Your task to perform on an android device: see sites visited before in the chrome app Image 0: 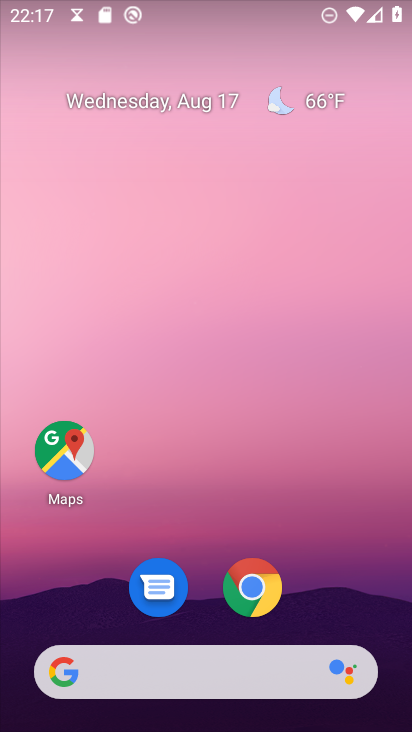
Step 0: click (277, 615)
Your task to perform on an android device: see sites visited before in the chrome app Image 1: 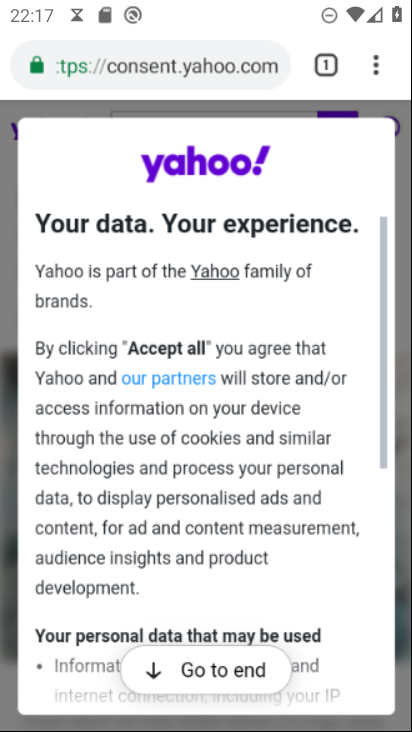
Step 1: click (257, 572)
Your task to perform on an android device: see sites visited before in the chrome app Image 2: 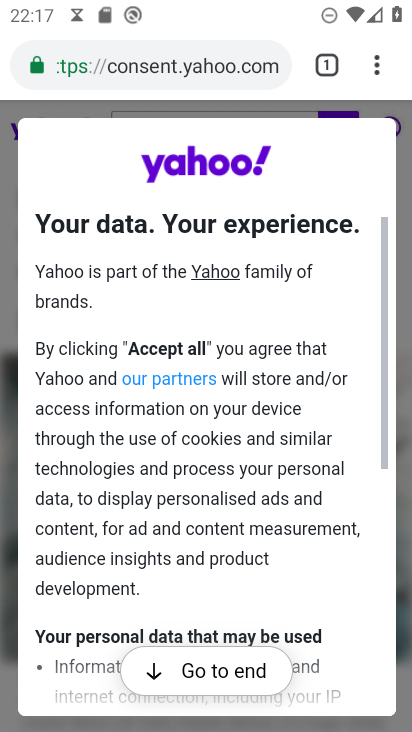
Step 2: click (370, 70)
Your task to perform on an android device: see sites visited before in the chrome app Image 3: 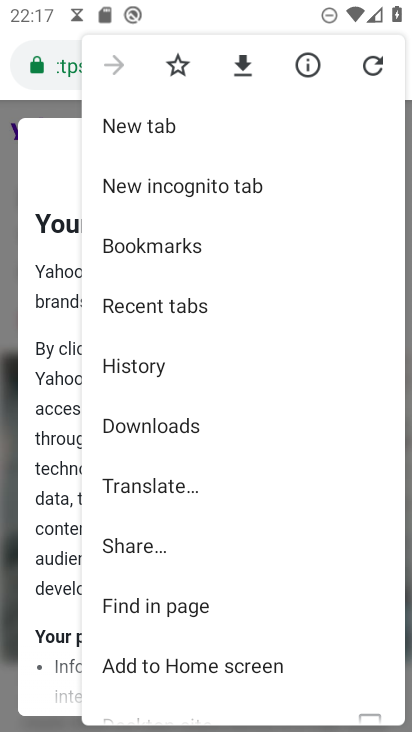
Step 3: drag from (354, 672) to (359, 232)
Your task to perform on an android device: see sites visited before in the chrome app Image 4: 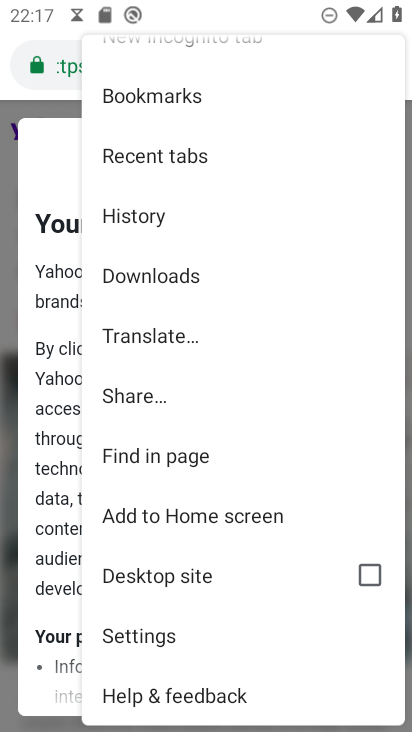
Step 4: click (139, 648)
Your task to perform on an android device: see sites visited before in the chrome app Image 5: 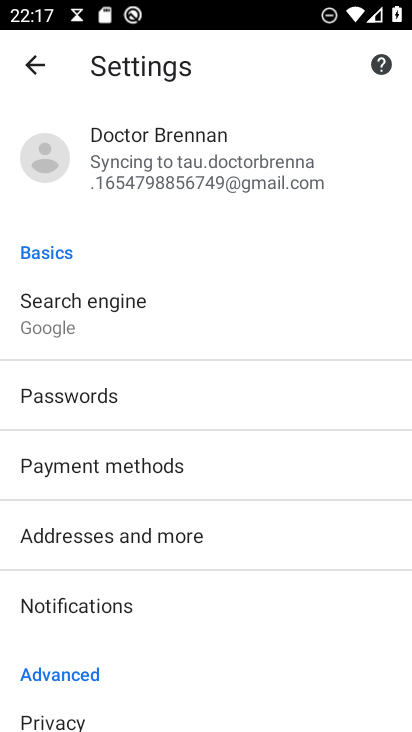
Step 5: drag from (243, 680) to (286, 346)
Your task to perform on an android device: see sites visited before in the chrome app Image 6: 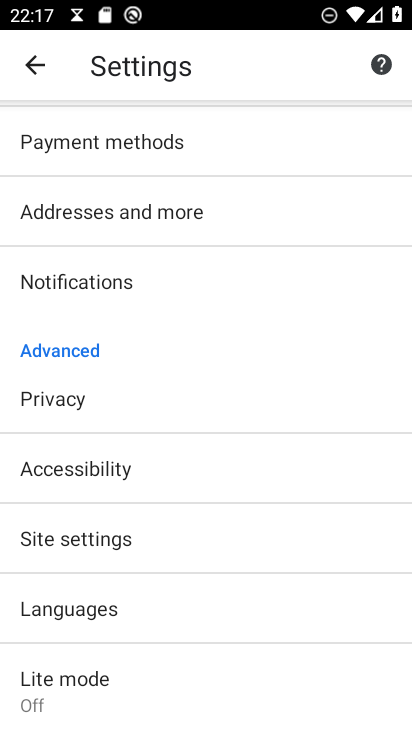
Step 6: click (86, 543)
Your task to perform on an android device: see sites visited before in the chrome app Image 7: 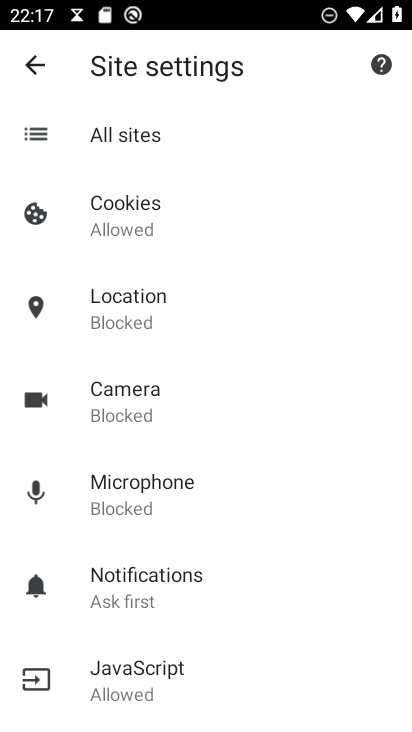
Step 7: task complete